Your task to perform on an android device: Go to network settings Image 0: 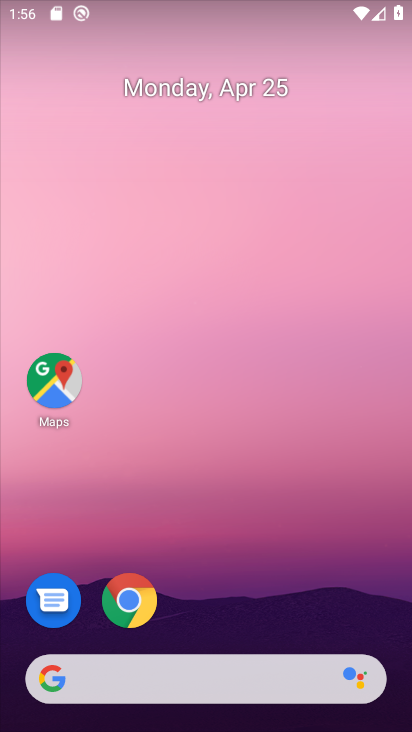
Step 0: drag from (298, 580) to (257, 241)
Your task to perform on an android device: Go to network settings Image 1: 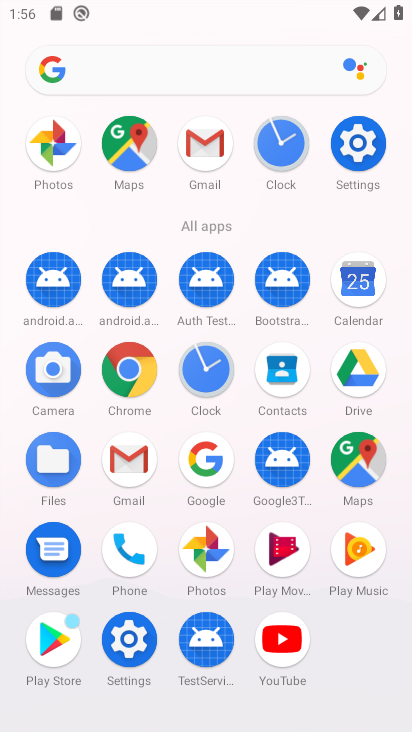
Step 1: click (365, 157)
Your task to perform on an android device: Go to network settings Image 2: 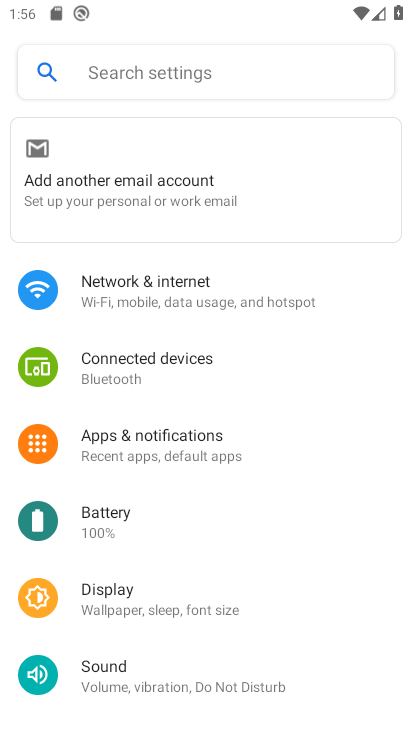
Step 2: drag from (217, 559) to (201, 394)
Your task to perform on an android device: Go to network settings Image 3: 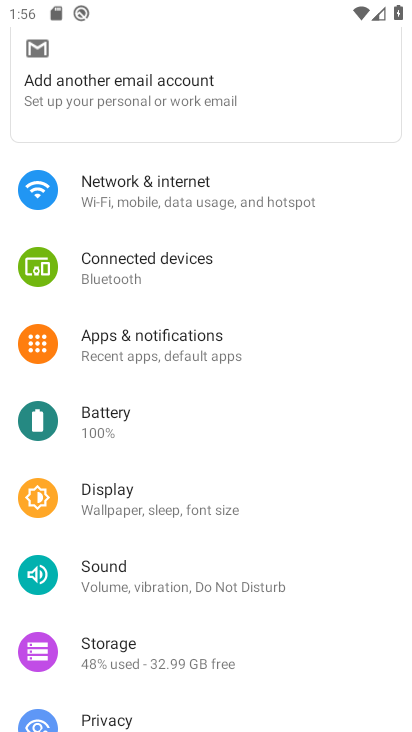
Step 3: click (174, 196)
Your task to perform on an android device: Go to network settings Image 4: 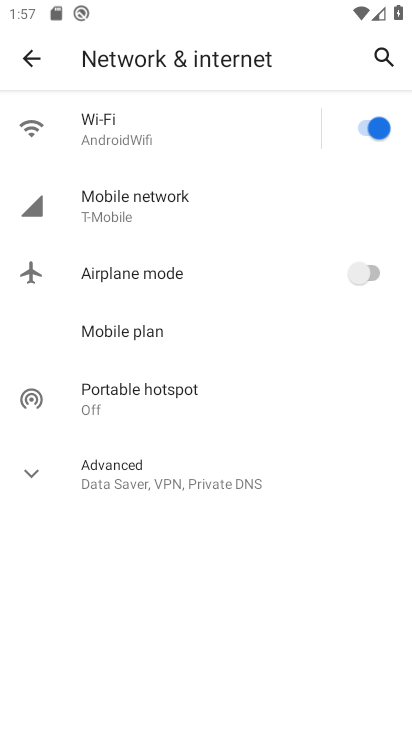
Step 4: task complete